Your task to perform on an android device: Open Android settings Image 0: 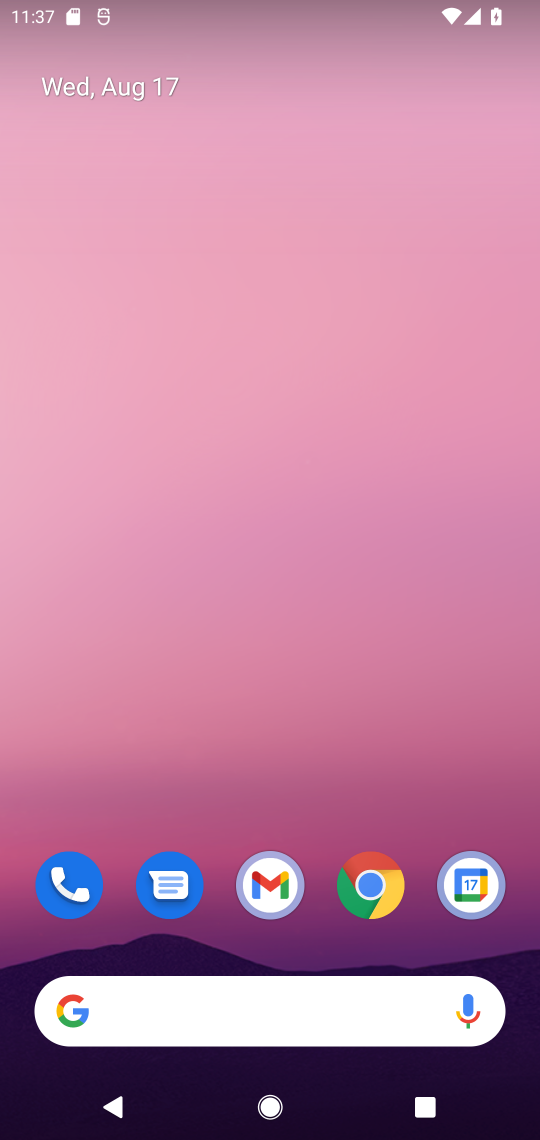
Step 0: drag from (338, 806) to (222, 102)
Your task to perform on an android device: Open Android settings Image 1: 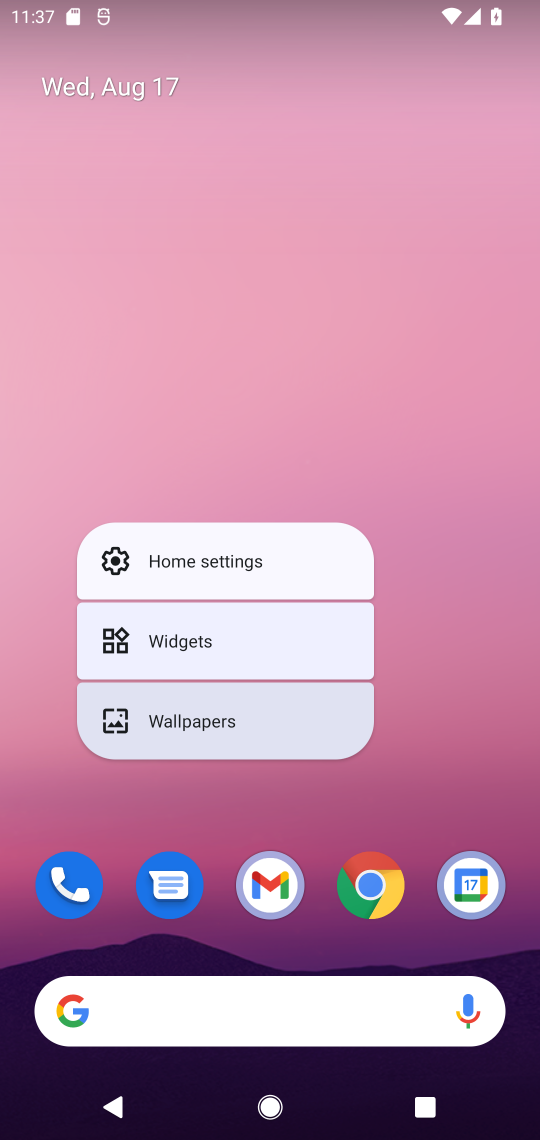
Step 1: click (416, 503)
Your task to perform on an android device: Open Android settings Image 2: 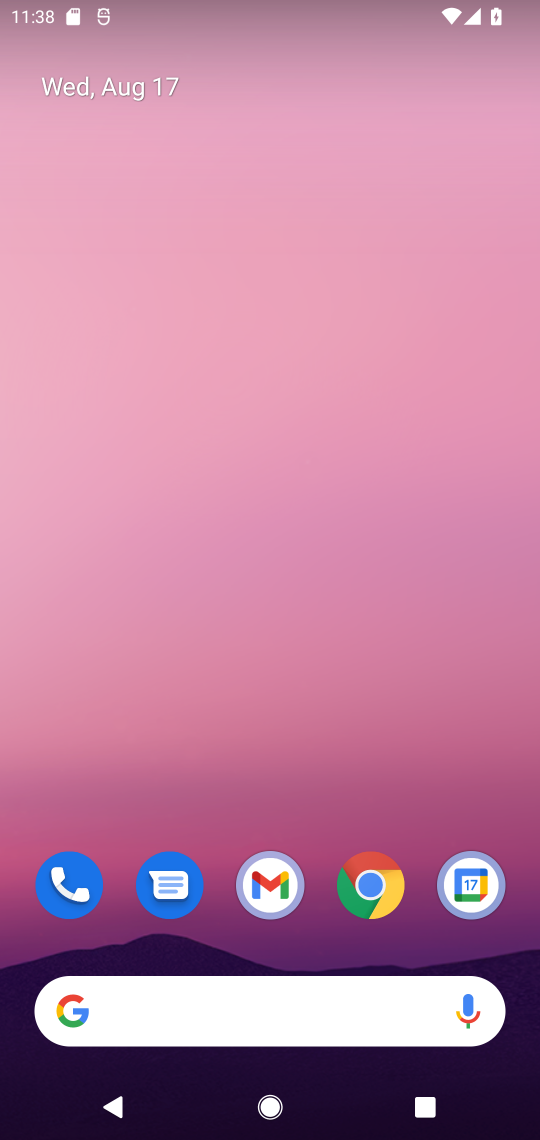
Step 2: drag from (451, 813) to (436, 283)
Your task to perform on an android device: Open Android settings Image 3: 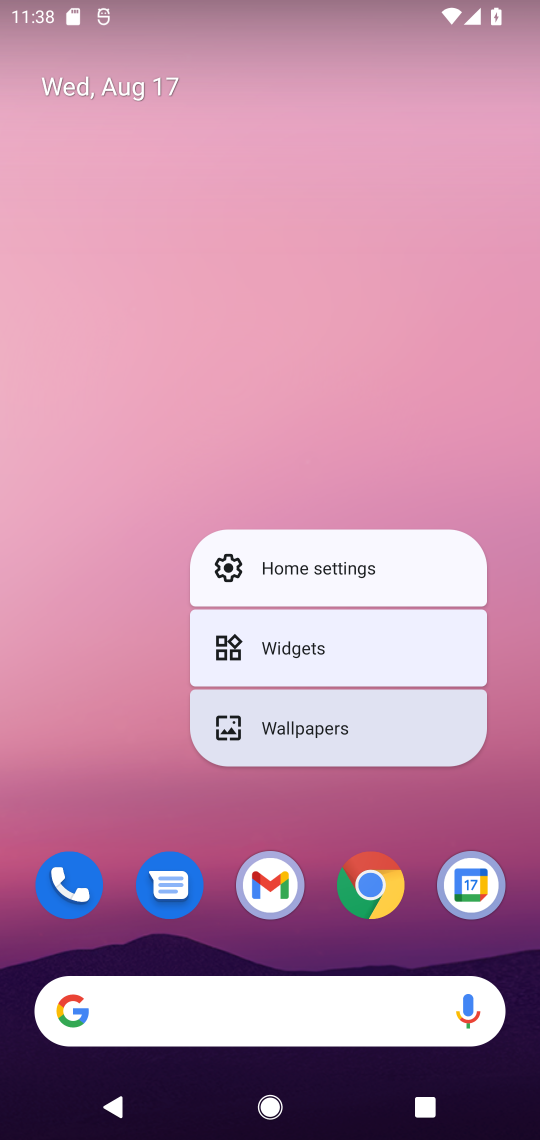
Step 3: click (396, 353)
Your task to perform on an android device: Open Android settings Image 4: 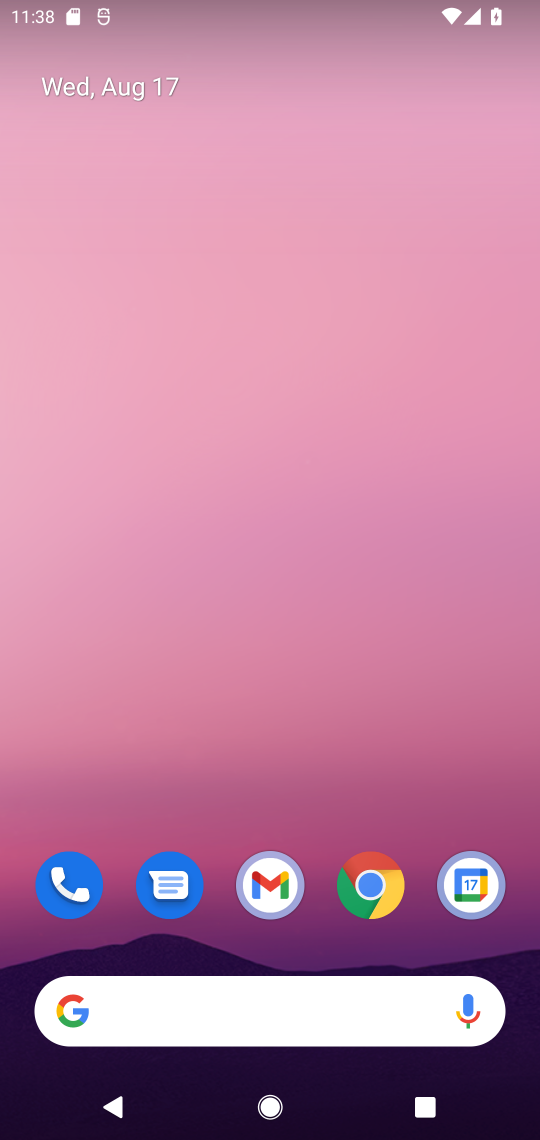
Step 4: drag from (426, 835) to (344, 347)
Your task to perform on an android device: Open Android settings Image 5: 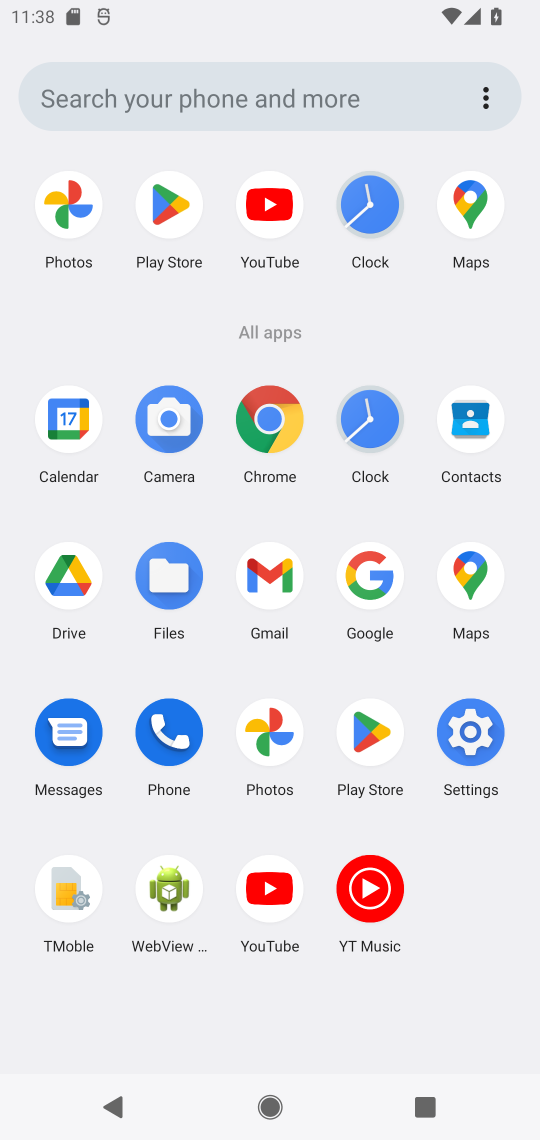
Step 5: click (468, 743)
Your task to perform on an android device: Open Android settings Image 6: 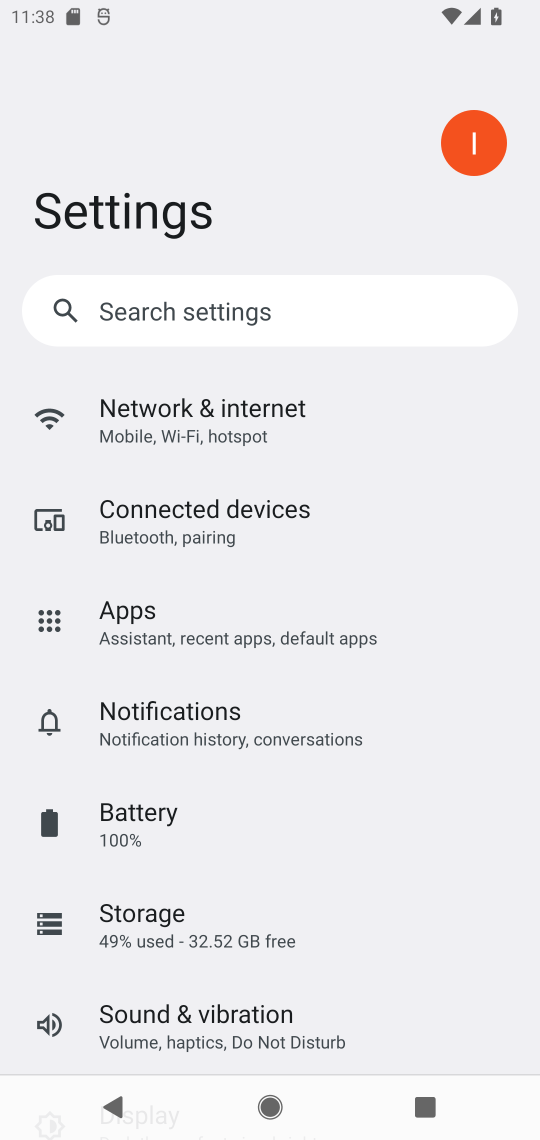
Step 6: task complete